Your task to perform on an android device: change your default location settings in chrome Image 0: 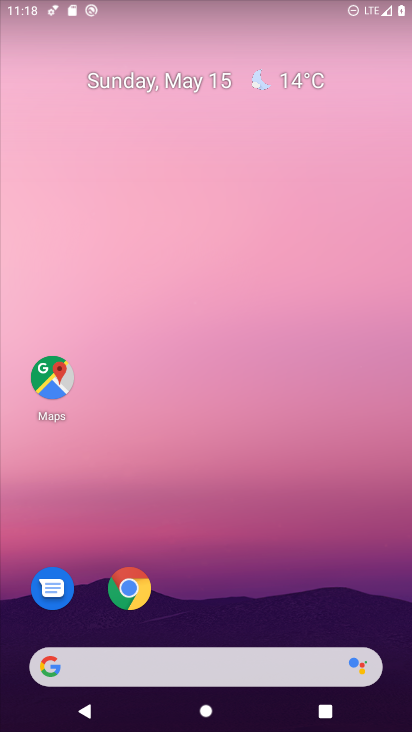
Step 0: click (133, 590)
Your task to perform on an android device: change your default location settings in chrome Image 1: 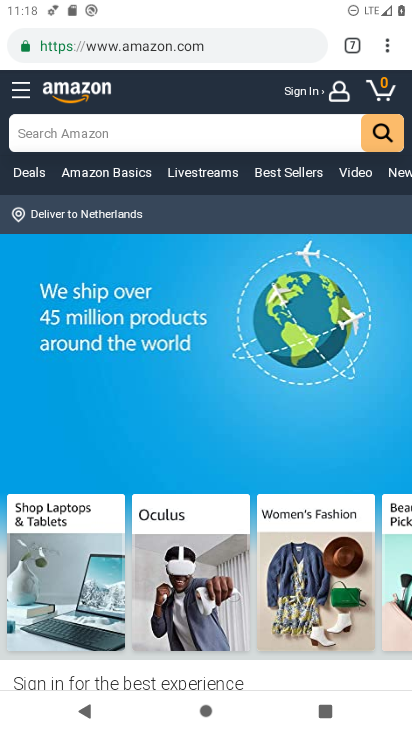
Step 1: click (387, 49)
Your task to perform on an android device: change your default location settings in chrome Image 2: 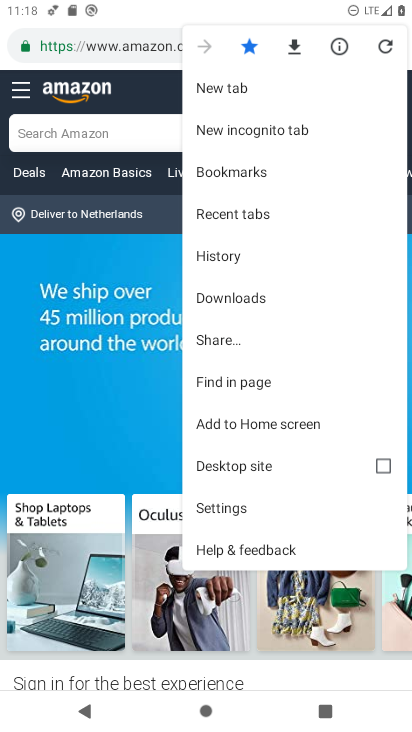
Step 2: click (235, 512)
Your task to perform on an android device: change your default location settings in chrome Image 3: 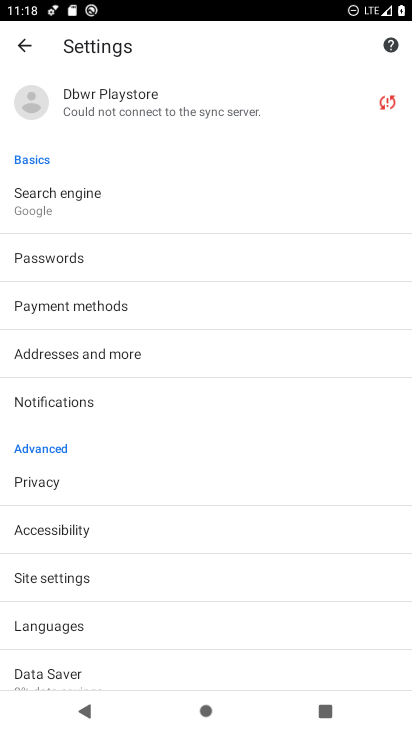
Step 3: click (88, 588)
Your task to perform on an android device: change your default location settings in chrome Image 4: 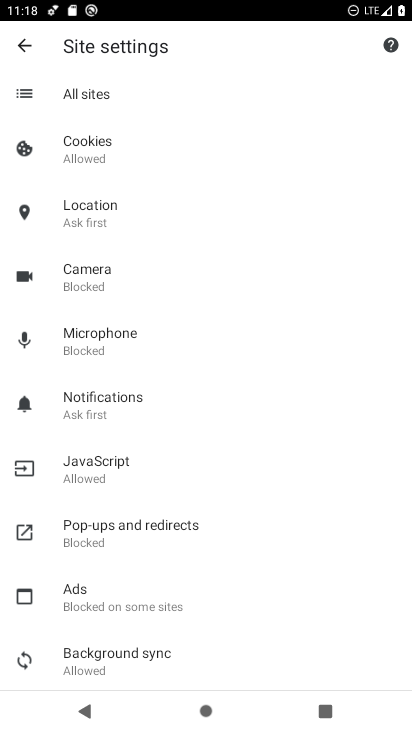
Step 4: click (113, 217)
Your task to perform on an android device: change your default location settings in chrome Image 5: 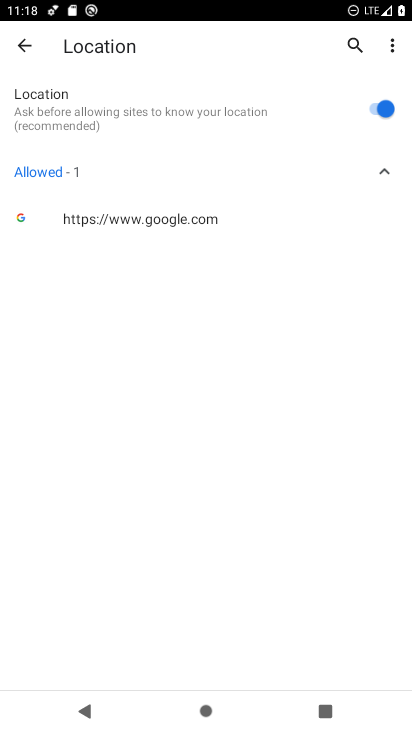
Step 5: click (361, 118)
Your task to perform on an android device: change your default location settings in chrome Image 6: 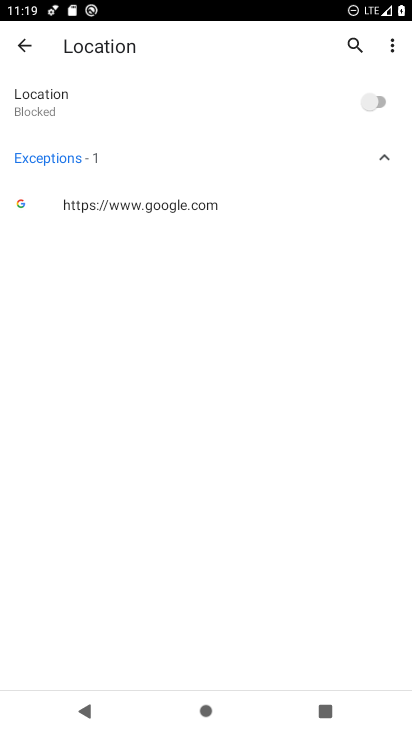
Step 6: task complete